Your task to perform on an android device: Go to Android settings Image 0: 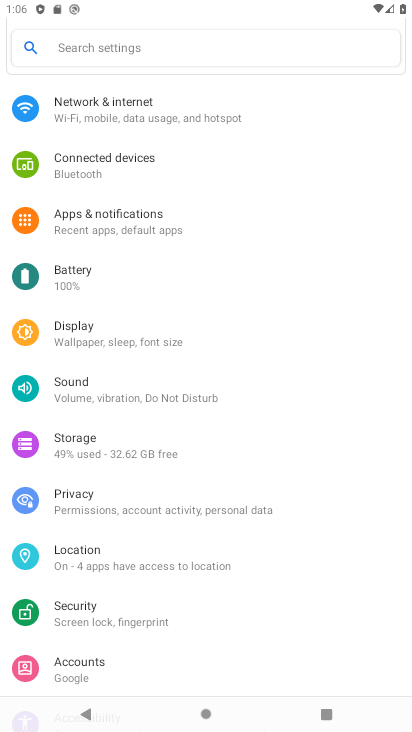
Step 0: drag from (279, 575) to (280, 115)
Your task to perform on an android device: Go to Android settings Image 1: 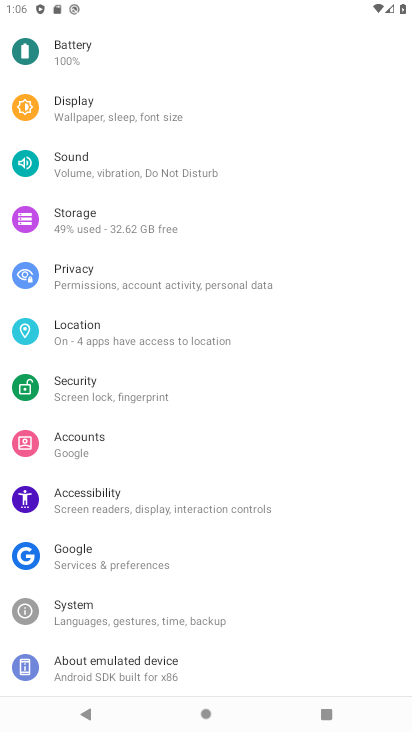
Step 1: drag from (288, 474) to (265, 52)
Your task to perform on an android device: Go to Android settings Image 2: 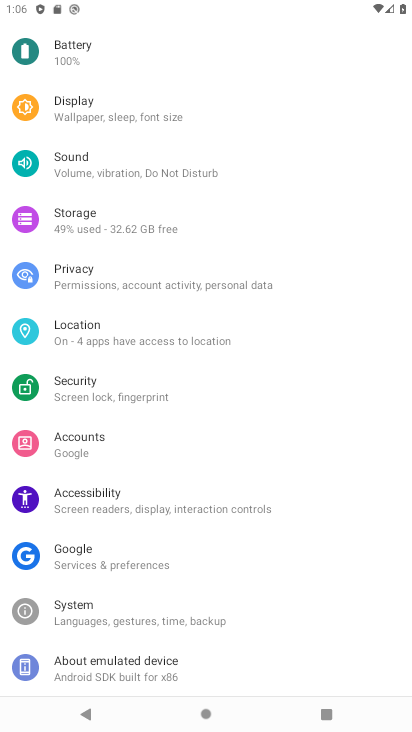
Step 2: click (170, 670)
Your task to perform on an android device: Go to Android settings Image 3: 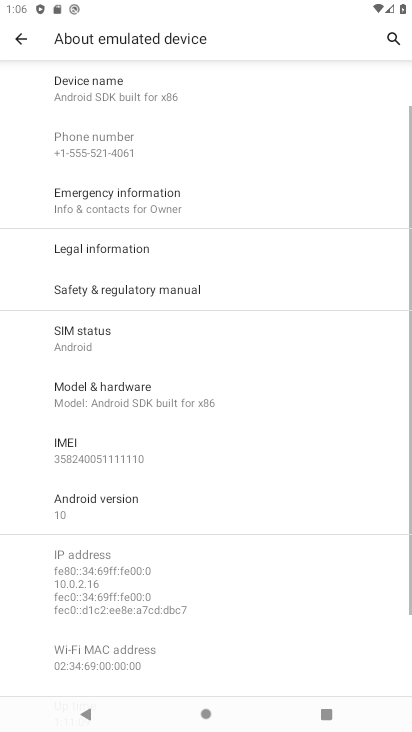
Step 3: task complete